Your task to perform on an android device: Empty the shopping cart on target. Search for "bose quietcomfort 35" on target, select the first entry, add it to the cart, then select checkout. Image 0: 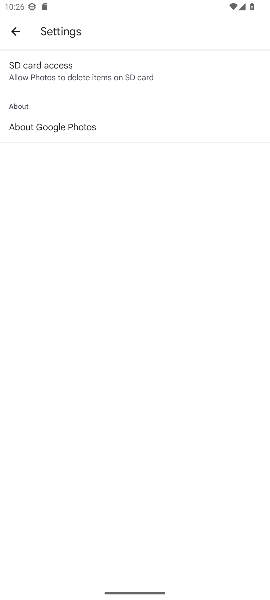
Step 0: press home button
Your task to perform on an android device: Empty the shopping cart on target. Search for "bose quietcomfort 35" on target, select the first entry, add it to the cart, then select checkout. Image 1: 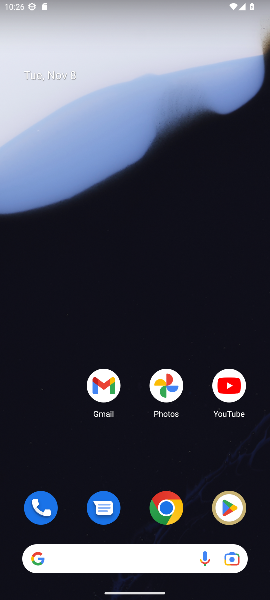
Step 1: click (169, 510)
Your task to perform on an android device: Empty the shopping cart on target. Search for "bose quietcomfort 35" on target, select the first entry, add it to the cart, then select checkout. Image 2: 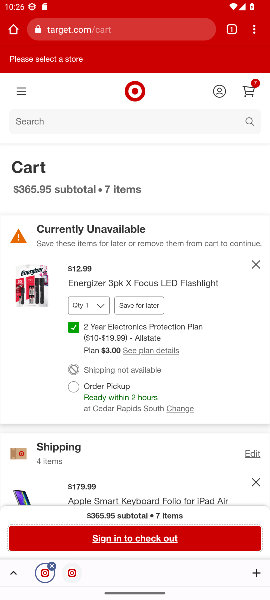
Step 2: click (78, 28)
Your task to perform on an android device: Empty the shopping cart on target. Search for "bose quietcomfort 35" on target, select the first entry, add it to the cart, then select checkout. Image 3: 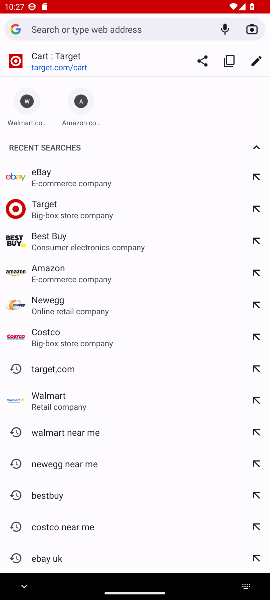
Step 3: type "target"
Your task to perform on an android device: Empty the shopping cart on target. Search for "bose quietcomfort 35" on target, select the first entry, add it to the cart, then select checkout. Image 4: 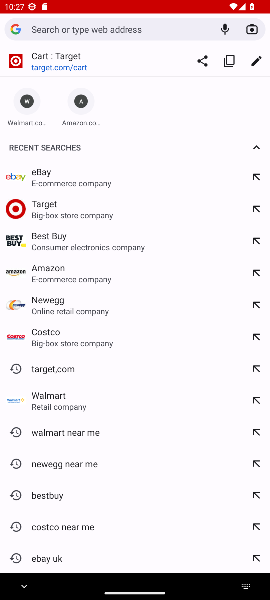
Step 4: click (40, 210)
Your task to perform on an android device: Empty the shopping cart on target. Search for "bose quietcomfort 35" on target, select the first entry, add it to the cart, then select checkout. Image 5: 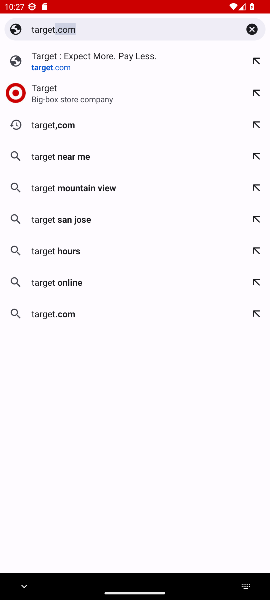
Step 5: click (38, 92)
Your task to perform on an android device: Empty the shopping cart on target. Search for "bose quietcomfort 35" on target, select the first entry, add it to the cart, then select checkout. Image 6: 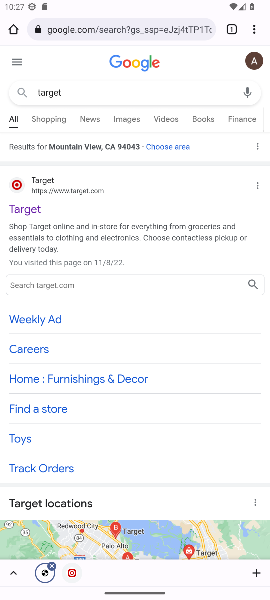
Step 6: click (29, 210)
Your task to perform on an android device: Empty the shopping cart on target. Search for "bose quietcomfort 35" on target, select the first entry, add it to the cart, then select checkout. Image 7: 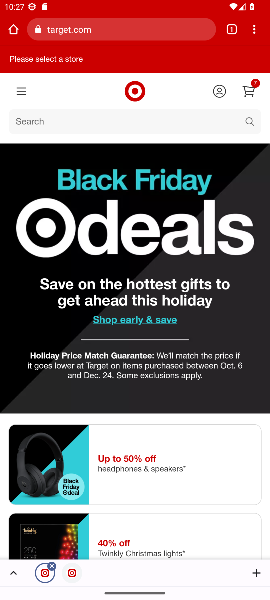
Step 7: click (182, 121)
Your task to perform on an android device: Empty the shopping cart on target. Search for "bose quietcomfort 35" on target, select the first entry, add it to the cart, then select checkout. Image 8: 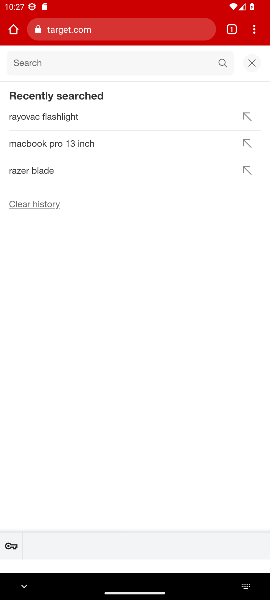
Step 8: type "bose quietcomfort 35"
Your task to perform on an android device: Empty the shopping cart on target. Search for "bose quietcomfort 35" on target, select the first entry, add it to the cart, then select checkout. Image 9: 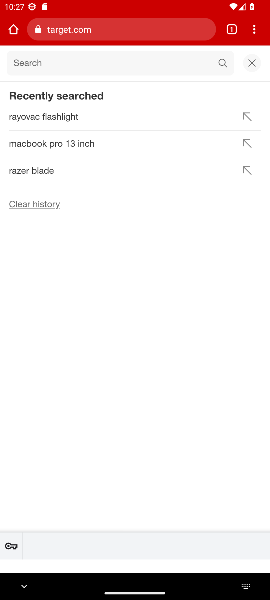
Step 9: type ""
Your task to perform on an android device: Empty the shopping cart on target. Search for "bose quietcomfort 35" on target, select the first entry, add it to the cart, then select checkout. Image 10: 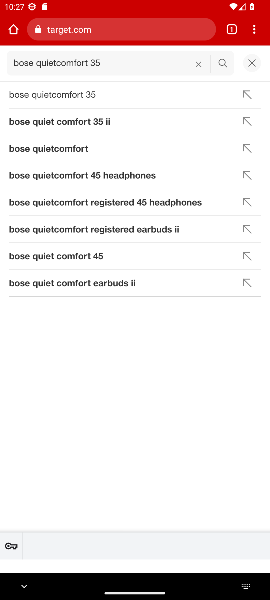
Step 10: click (82, 122)
Your task to perform on an android device: Empty the shopping cart on target. Search for "bose quietcomfort 35" on target, select the first entry, add it to the cart, then select checkout. Image 11: 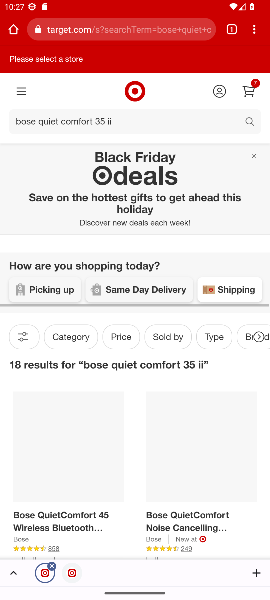
Step 11: click (53, 497)
Your task to perform on an android device: Empty the shopping cart on target. Search for "bose quietcomfort 35" on target, select the first entry, add it to the cart, then select checkout. Image 12: 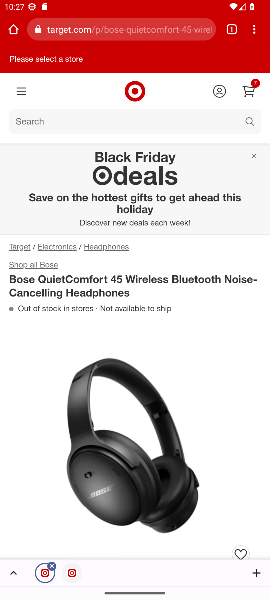
Step 12: drag from (127, 452) to (125, 78)
Your task to perform on an android device: Empty the shopping cart on target. Search for "bose quietcomfort 35" on target, select the first entry, add it to the cart, then select checkout. Image 13: 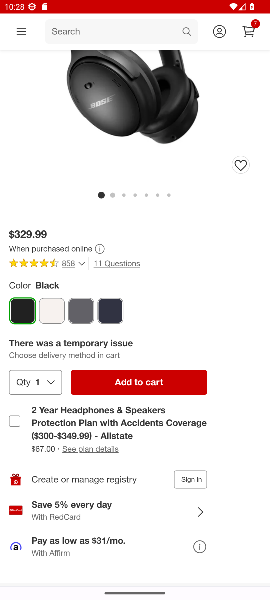
Step 13: click (138, 382)
Your task to perform on an android device: Empty the shopping cart on target. Search for "bose quietcomfort 35" on target, select the first entry, add it to the cart, then select checkout. Image 14: 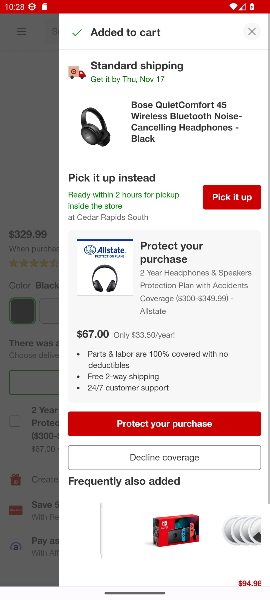
Step 14: click (177, 424)
Your task to perform on an android device: Empty the shopping cart on target. Search for "bose quietcomfort 35" on target, select the first entry, add it to the cart, then select checkout. Image 15: 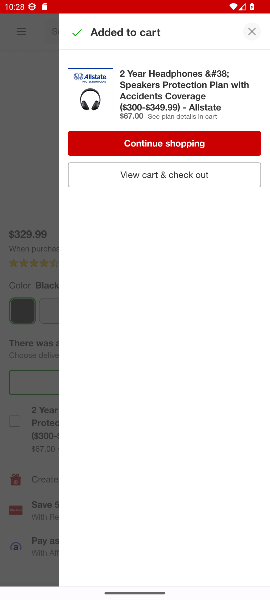
Step 15: click (141, 174)
Your task to perform on an android device: Empty the shopping cart on target. Search for "bose quietcomfort 35" on target, select the first entry, add it to the cart, then select checkout. Image 16: 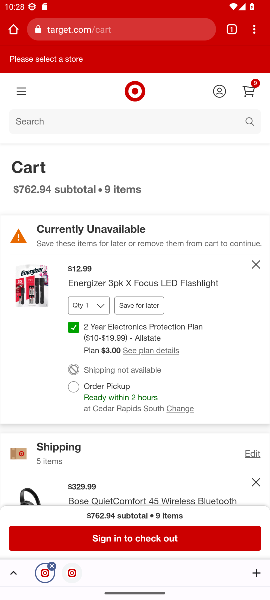
Step 16: click (165, 541)
Your task to perform on an android device: Empty the shopping cart on target. Search for "bose quietcomfort 35" on target, select the first entry, add it to the cart, then select checkout. Image 17: 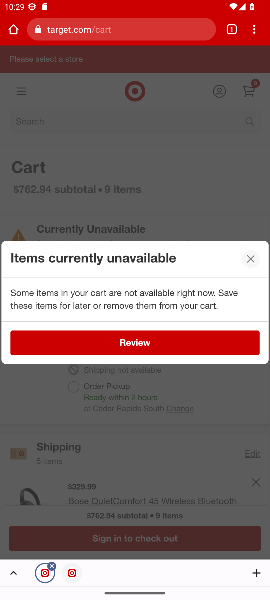
Step 17: click (252, 254)
Your task to perform on an android device: Empty the shopping cart on target. Search for "bose quietcomfort 35" on target, select the first entry, add it to the cart, then select checkout. Image 18: 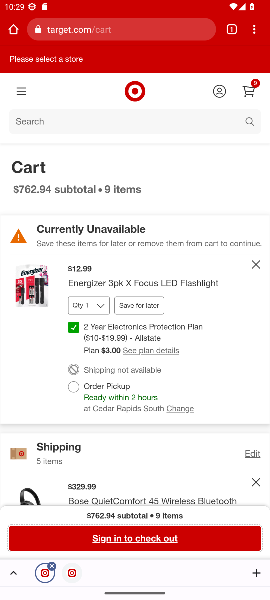
Step 18: click (152, 540)
Your task to perform on an android device: Empty the shopping cart on target. Search for "bose quietcomfort 35" on target, select the first entry, add it to the cart, then select checkout. Image 19: 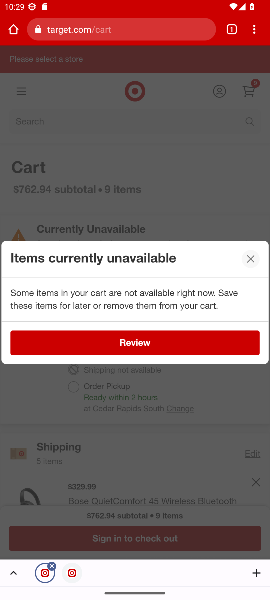
Step 19: click (250, 256)
Your task to perform on an android device: Empty the shopping cart on target. Search for "bose quietcomfort 35" on target, select the first entry, add it to the cart, then select checkout. Image 20: 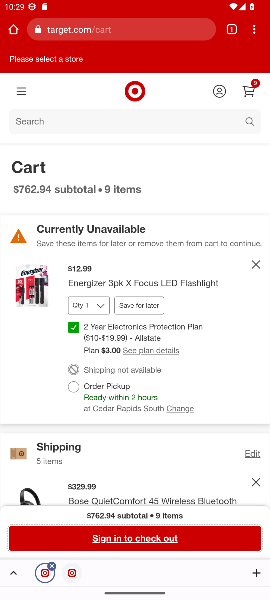
Step 20: task complete